Your task to perform on an android device: add a contact Image 0: 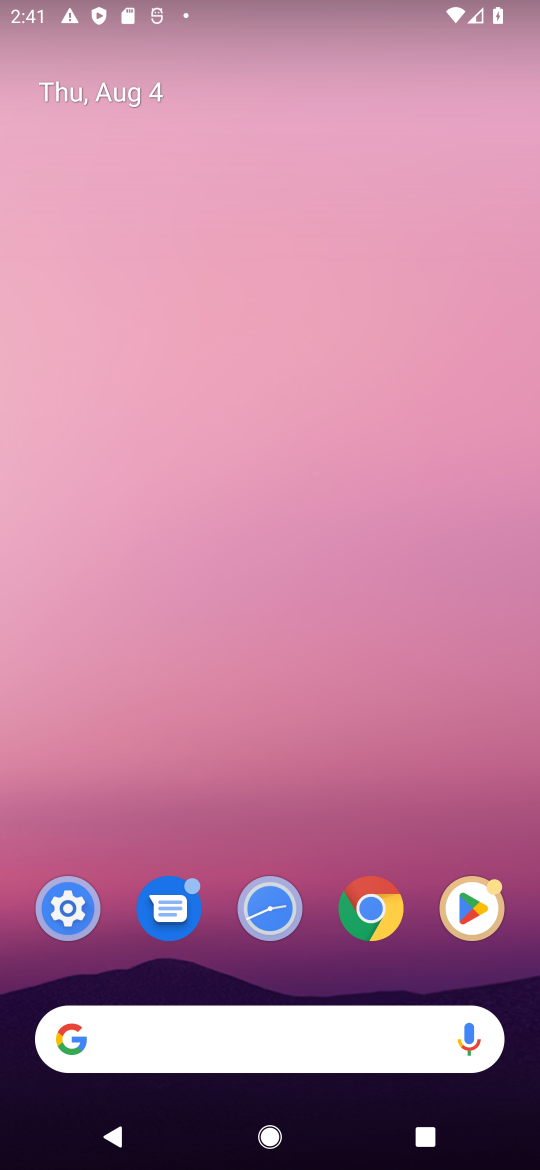
Step 0: drag from (257, 956) to (250, 0)
Your task to perform on an android device: add a contact Image 1: 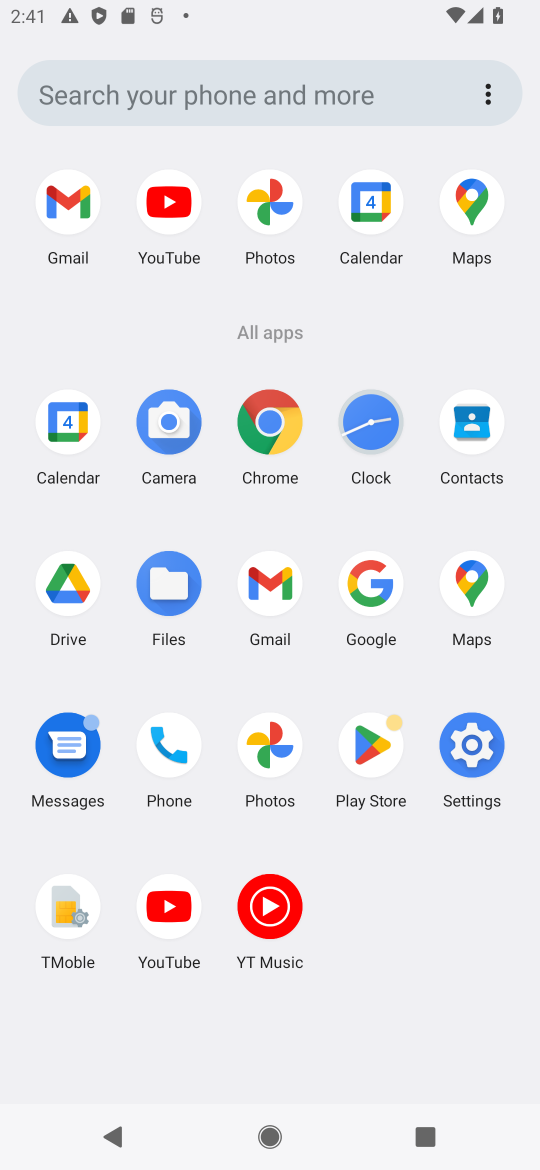
Step 1: click (172, 757)
Your task to perform on an android device: add a contact Image 2: 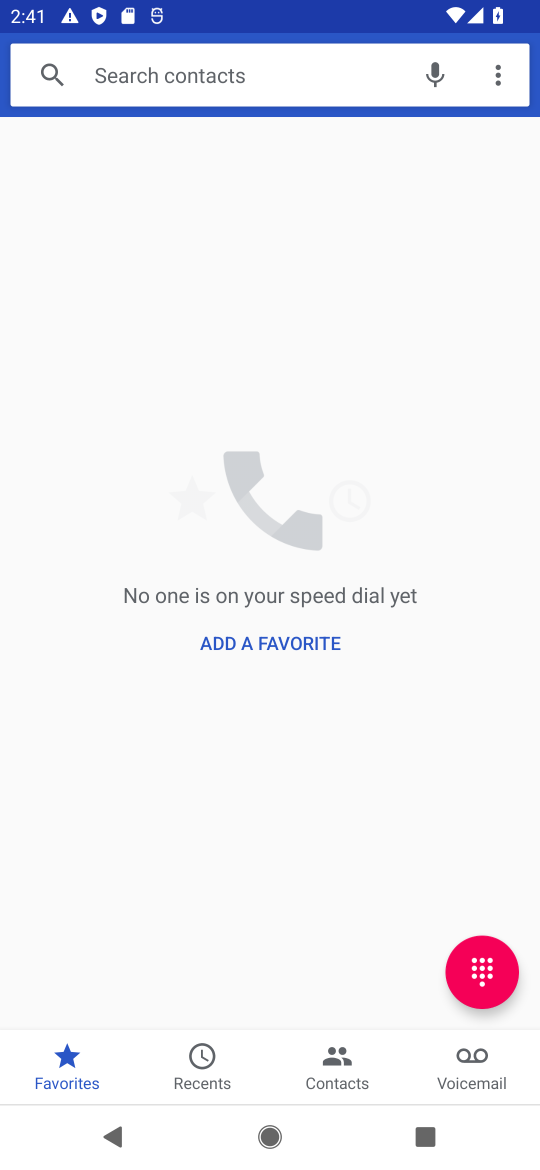
Step 2: click (305, 1098)
Your task to perform on an android device: add a contact Image 3: 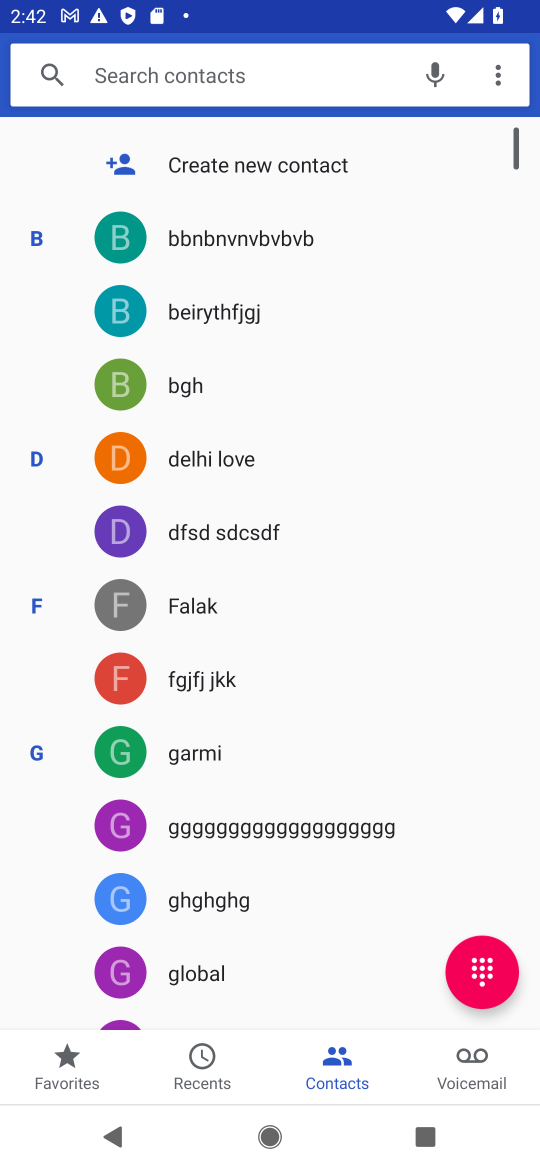
Step 3: click (248, 169)
Your task to perform on an android device: add a contact Image 4: 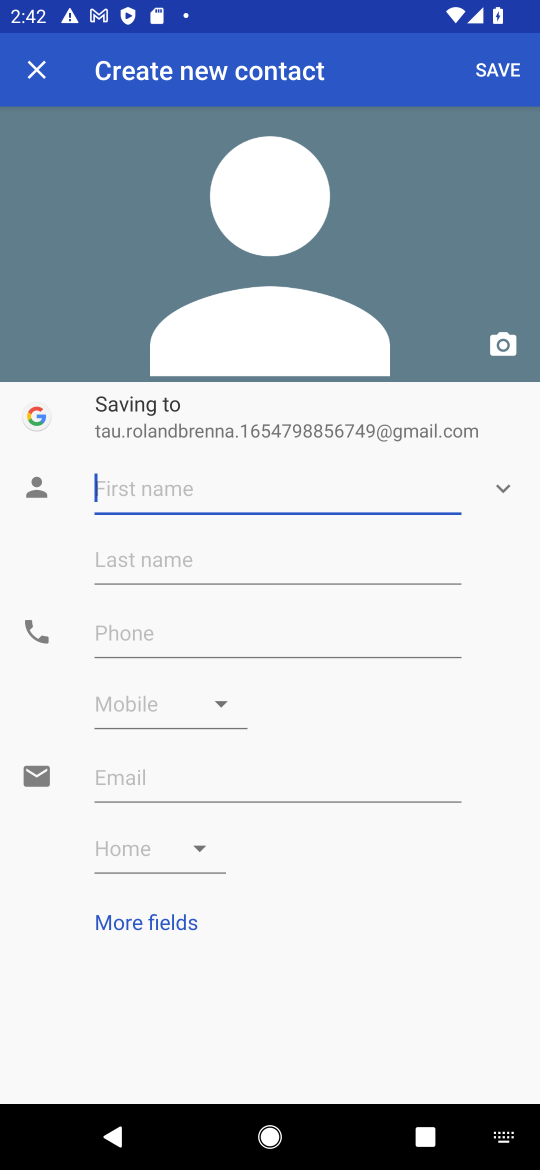
Step 4: type "rtytrty"
Your task to perform on an android device: add a contact Image 5: 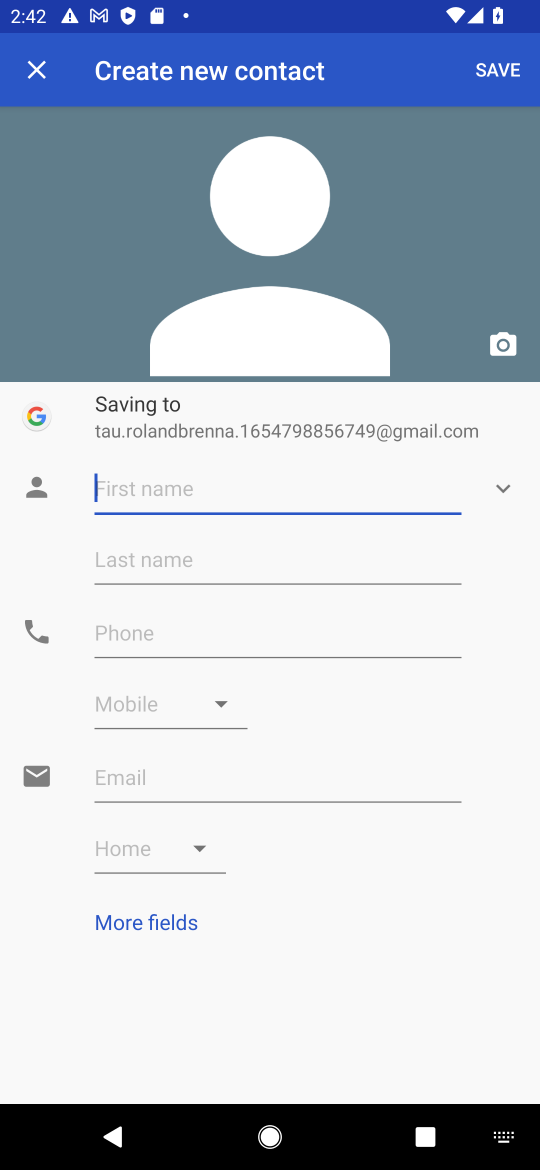
Step 5: click (141, 639)
Your task to perform on an android device: add a contact Image 6: 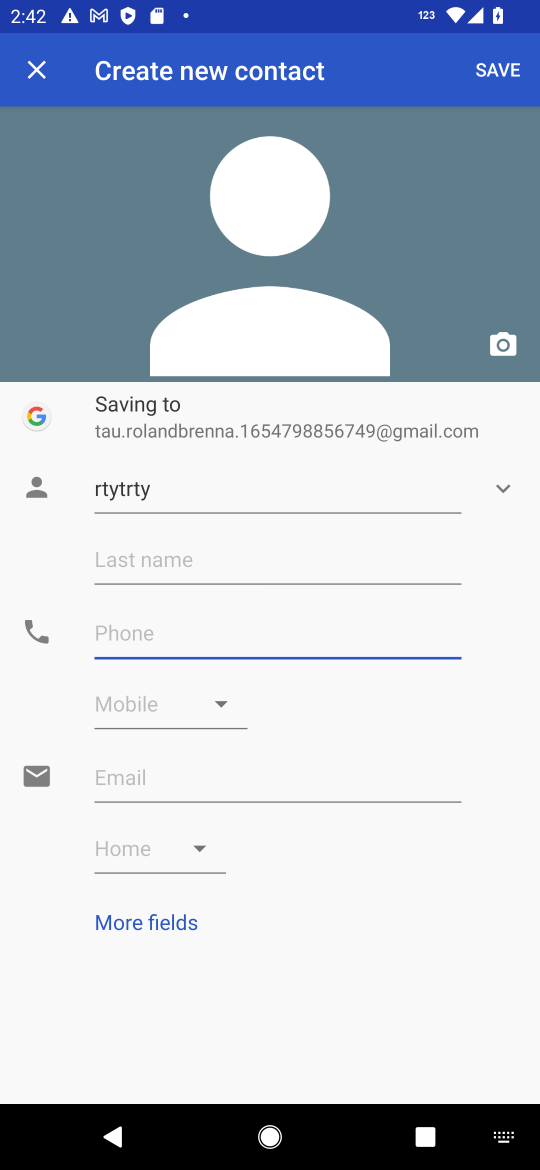
Step 6: type "5676567"
Your task to perform on an android device: add a contact Image 7: 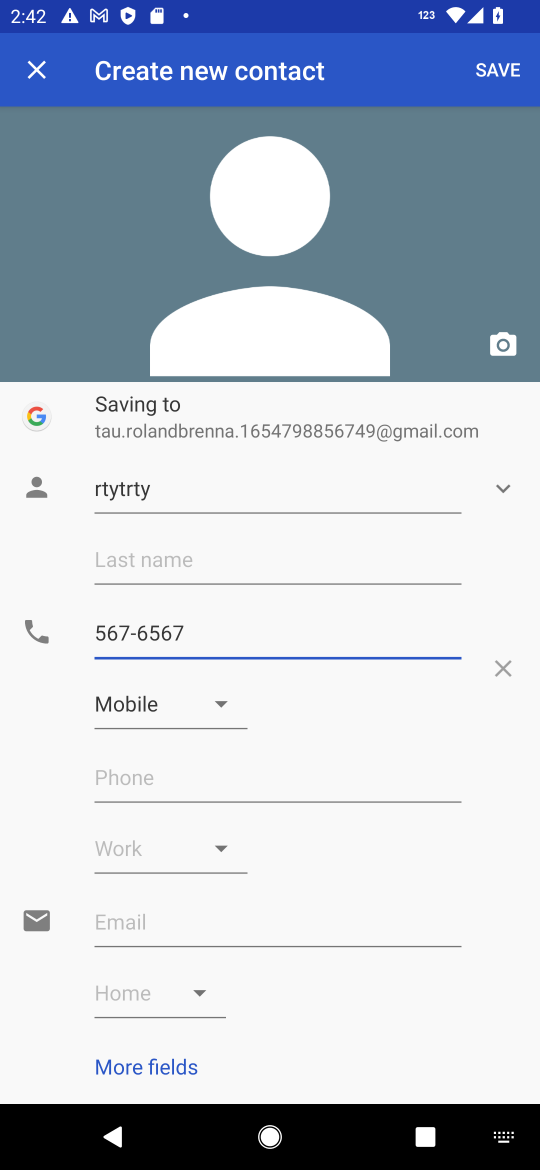
Step 7: click (492, 70)
Your task to perform on an android device: add a contact Image 8: 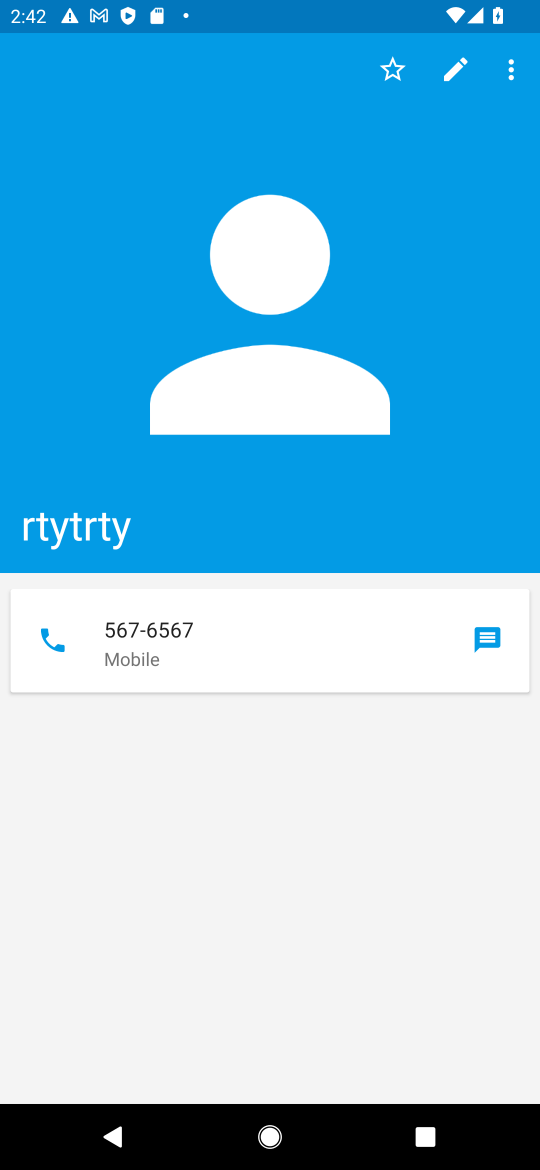
Step 8: task complete